Your task to perform on an android device: turn off location Image 0: 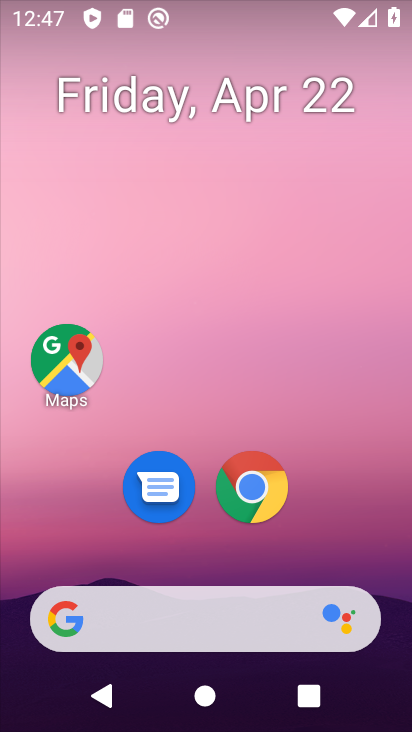
Step 0: drag from (199, 427) to (214, 162)
Your task to perform on an android device: turn off location Image 1: 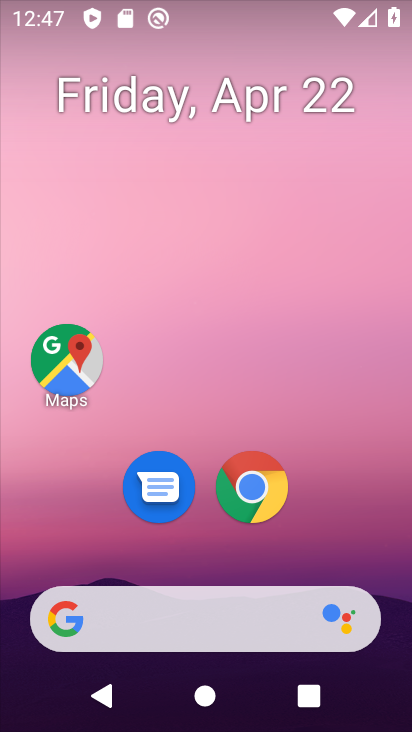
Step 1: drag from (195, 574) to (174, 89)
Your task to perform on an android device: turn off location Image 2: 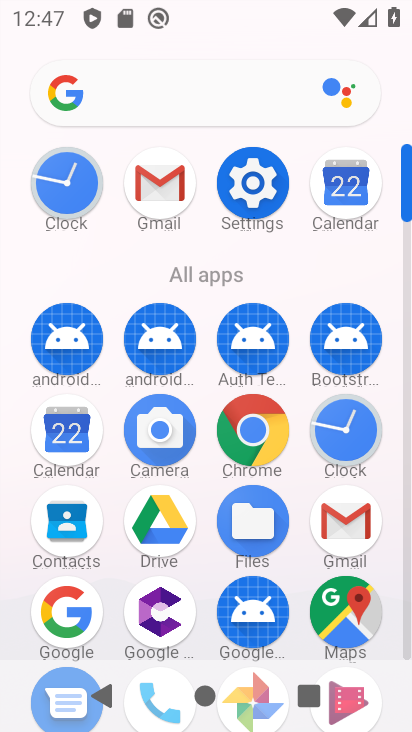
Step 2: click (252, 201)
Your task to perform on an android device: turn off location Image 3: 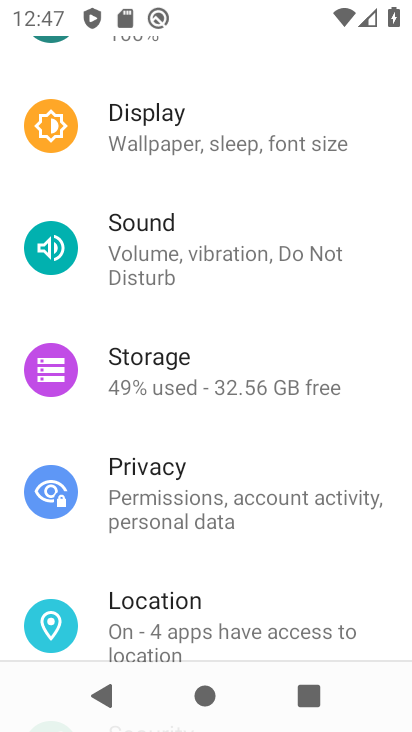
Step 3: drag from (249, 576) to (254, 353)
Your task to perform on an android device: turn off location Image 4: 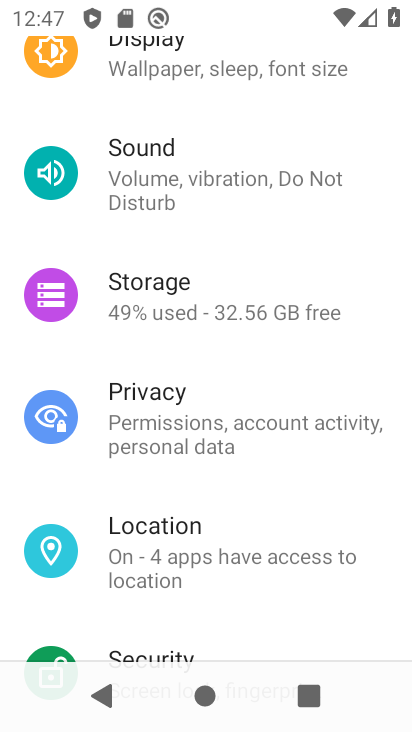
Step 4: click (217, 526)
Your task to perform on an android device: turn off location Image 5: 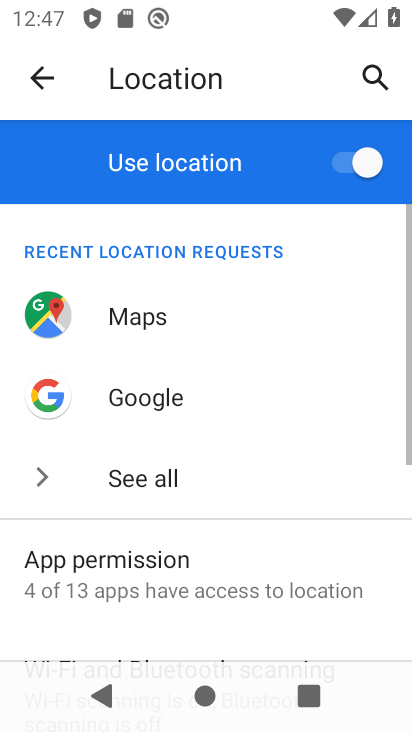
Step 5: click (339, 164)
Your task to perform on an android device: turn off location Image 6: 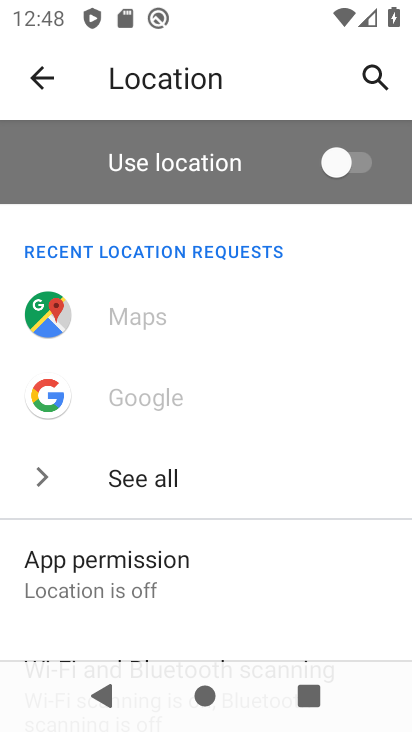
Step 6: task complete